Your task to perform on an android device: change your default location settings in chrome Image 0: 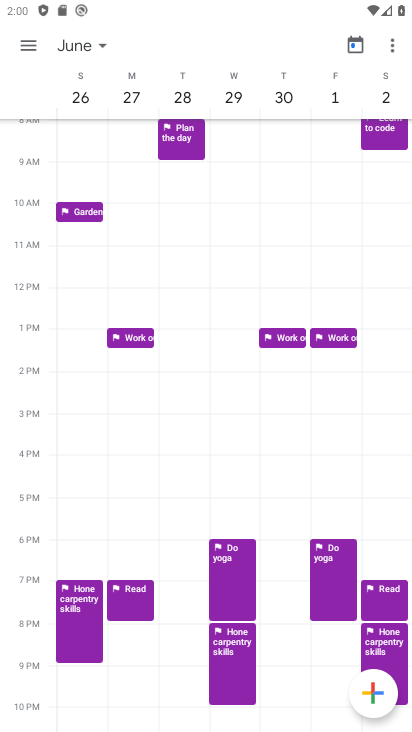
Step 0: press home button
Your task to perform on an android device: change your default location settings in chrome Image 1: 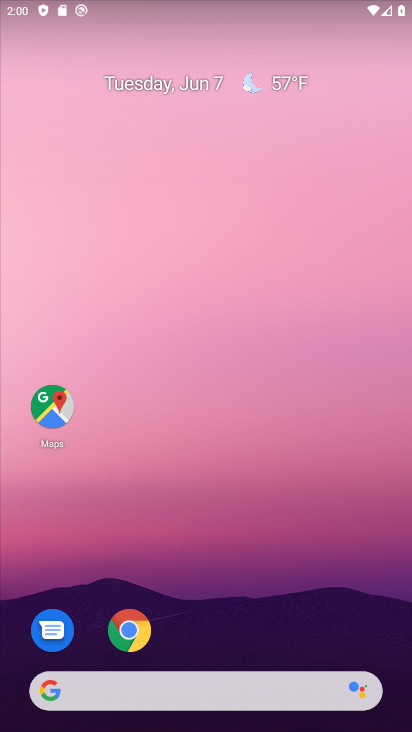
Step 1: click (133, 637)
Your task to perform on an android device: change your default location settings in chrome Image 2: 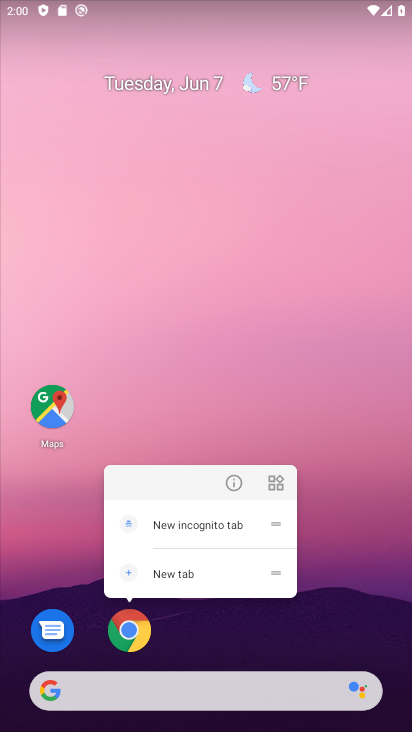
Step 2: click (120, 620)
Your task to perform on an android device: change your default location settings in chrome Image 3: 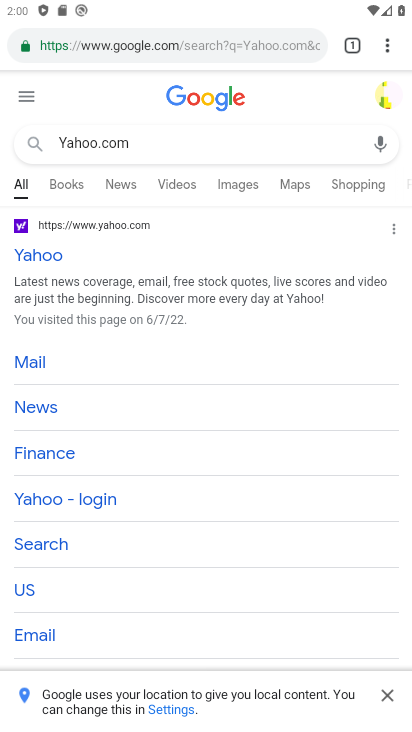
Step 3: click (128, 626)
Your task to perform on an android device: change your default location settings in chrome Image 4: 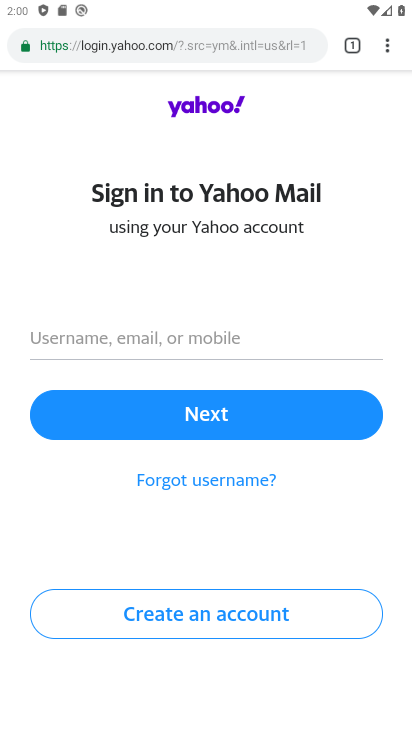
Step 4: press back button
Your task to perform on an android device: change your default location settings in chrome Image 5: 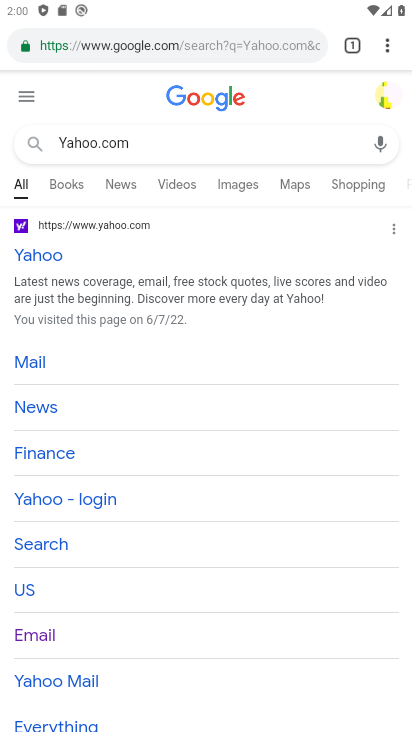
Step 5: click (383, 49)
Your task to perform on an android device: change your default location settings in chrome Image 6: 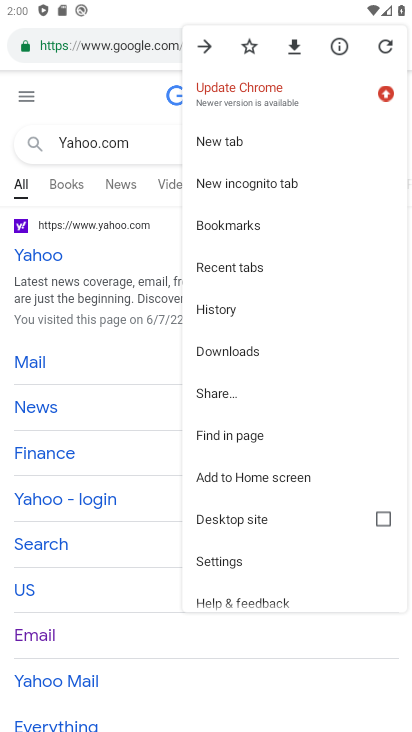
Step 6: click (226, 563)
Your task to perform on an android device: change your default location settings in chrome Image 7: 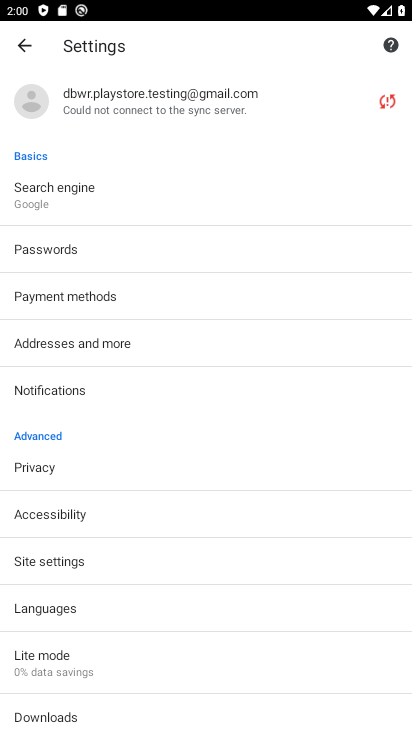
Step 7: click (68, 562)
Your task to perform on an android device: change your default location settings in chrome Image 8: 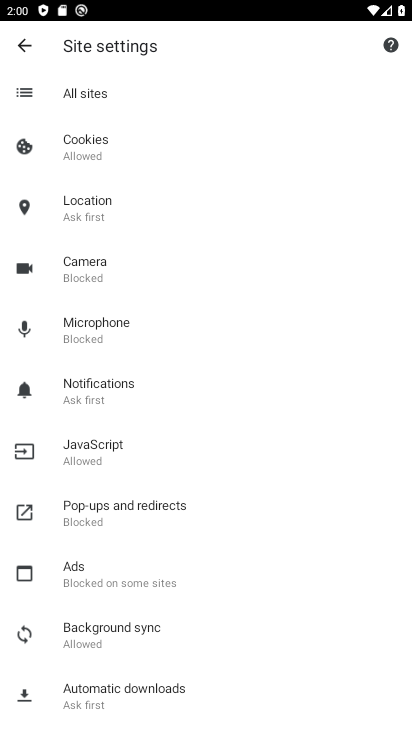
Step 8: click (89, 204)
Your task to perform on an android device: change your default location settings in chrome Image 9: 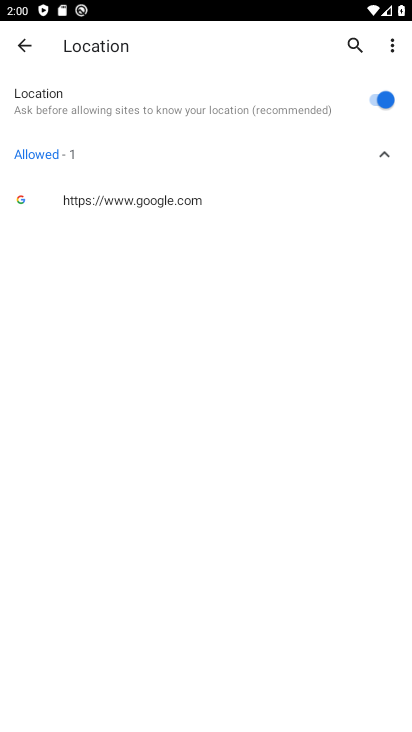
Step 9: click (374, 93)
Your task to perform on an android device: change your default location settings in chrome Image 10: 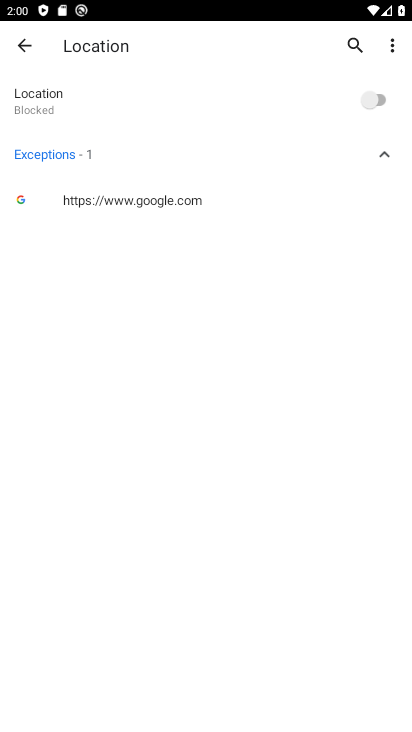
Step 10: task complete